Your task to perform on an android device: open chrome privacy settings Image 0: 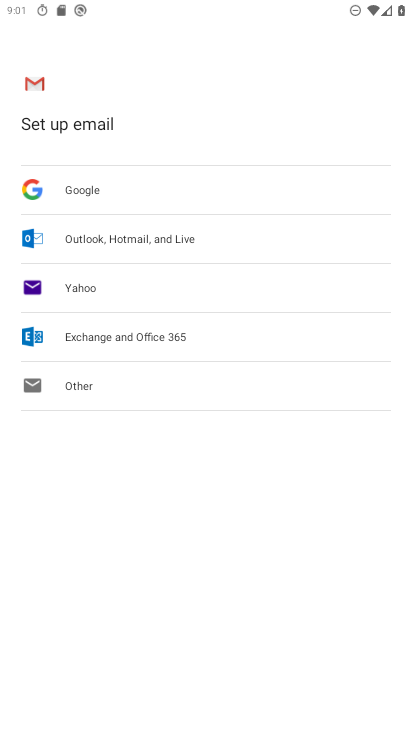
Step 0: press home button
Your task to perform on an android device: open chrome privacy settings Image 1: 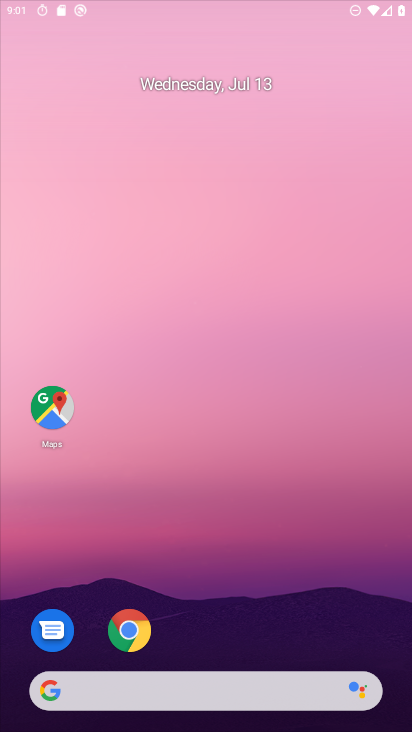
Step 1: drag from (375, 638) to (204, 7)
Your task to perform on an android device: open chrome privacy settings Image 2: 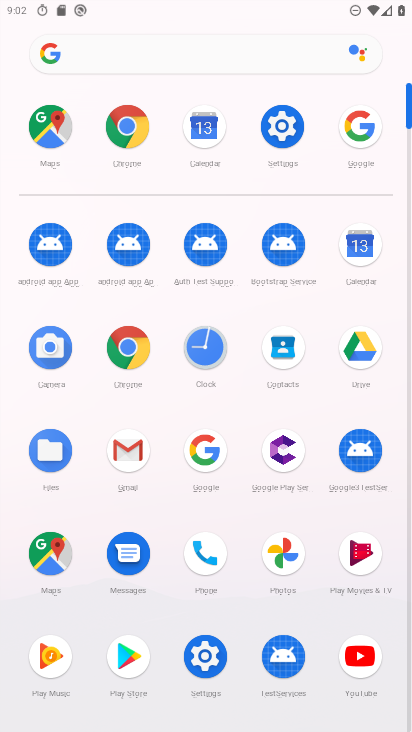
Step 2: click (135, 131)
Your task to perform on an android device: open chrome privacy settings Image 3: 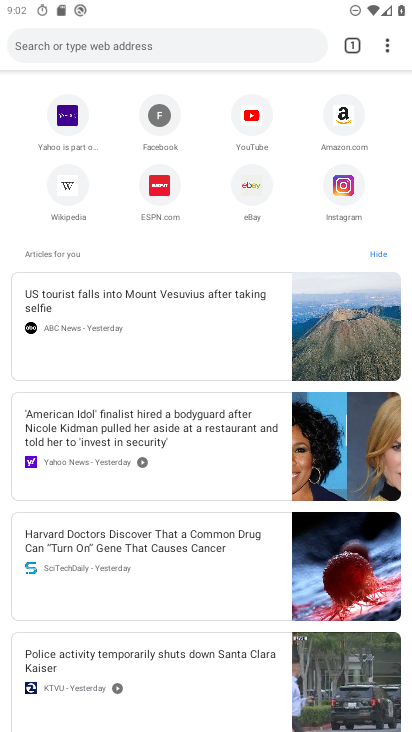
Step 3: click (384, 39)
Your task to perform on an android device: open chrome privacy settings Image 4: 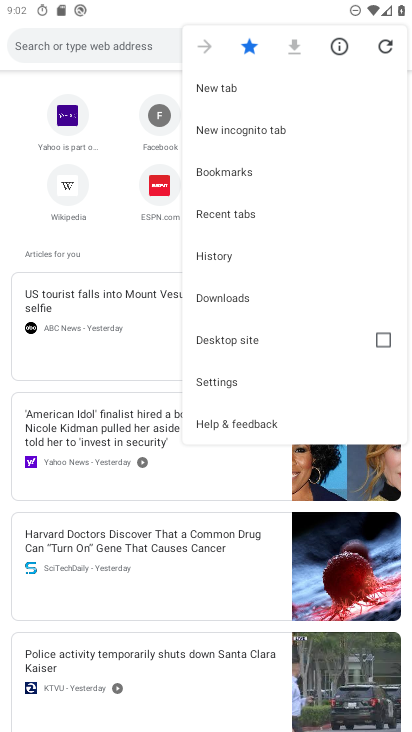
Step 4: click (234, 384)
Your task to perform on an android device: open chrome privacy settings Image 5: 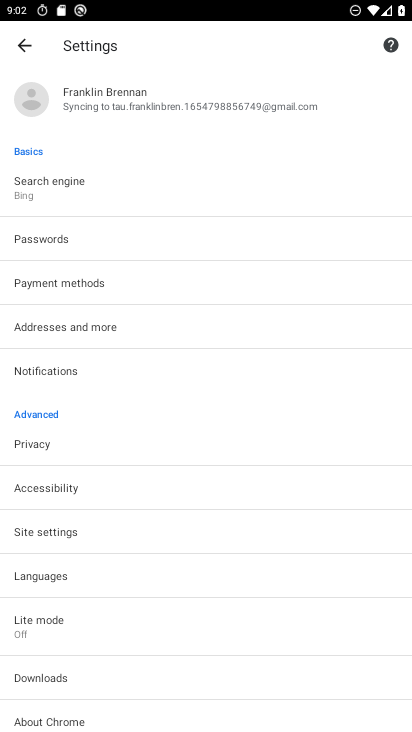
Step 5: click (53, 442)
Your task to perform on an android device: open chrome privacy settings Image 6: 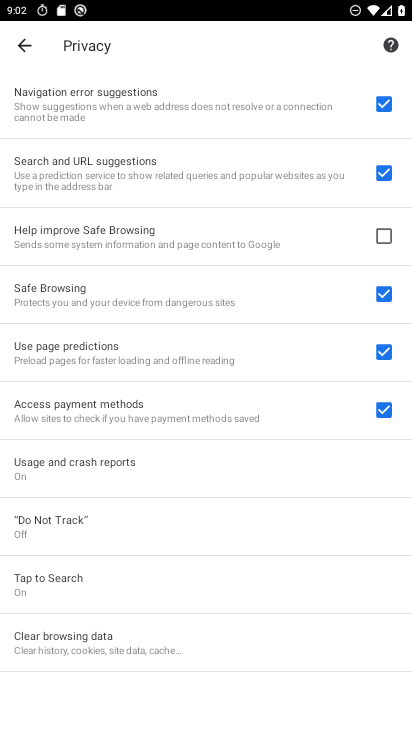
Step 6: task complete